Your task to perform on an android device: open wifi settings Image 0: 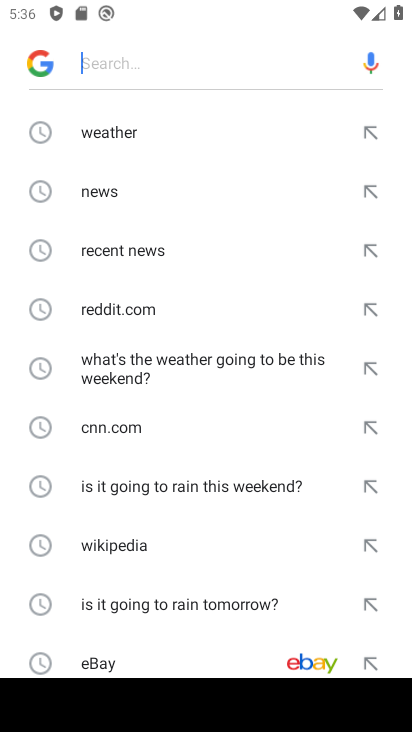
Step 0: press home button
Your task to perform on an android device: open wifi settings Image 1: 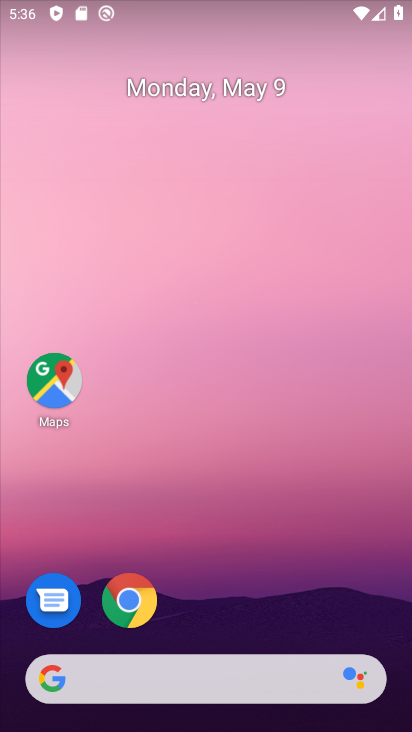
Step 1: drag from (182, 629) to (306, 26)
Your task to perform on an android device: open wifi settings Image 2: 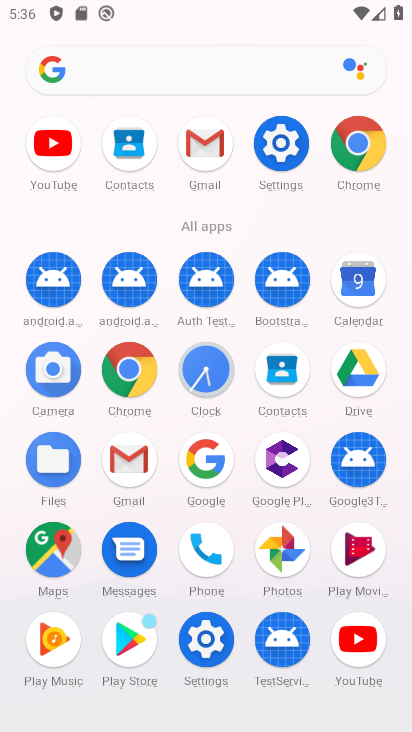
Step 2: click (281, 150)
Your task to perform on an android device: open wifi settings Image 3: 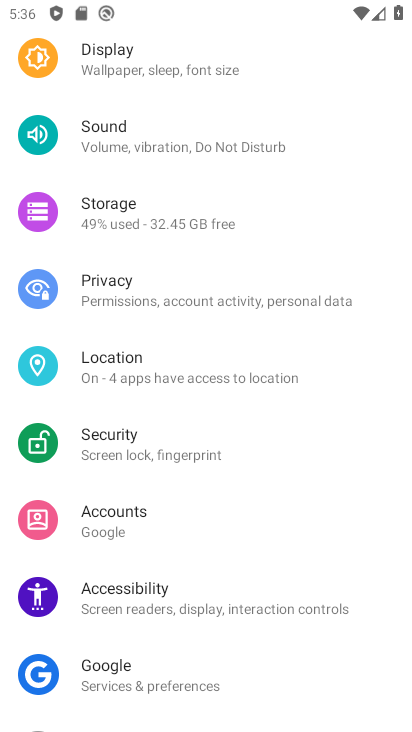
Step 3: drag from (254, 180) to (217, 599)
Your task to perform on an android device: open wifi settings Image 4: 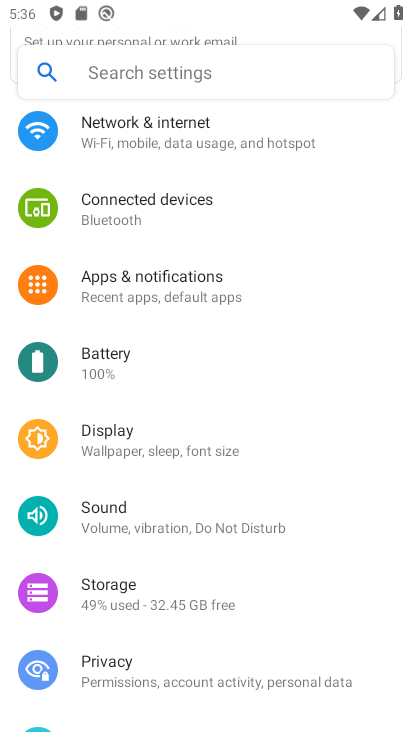
Step 4: drag from (246, 207) to (239, 428)
Your task to perform on an android device: open wifi settings Image 5: 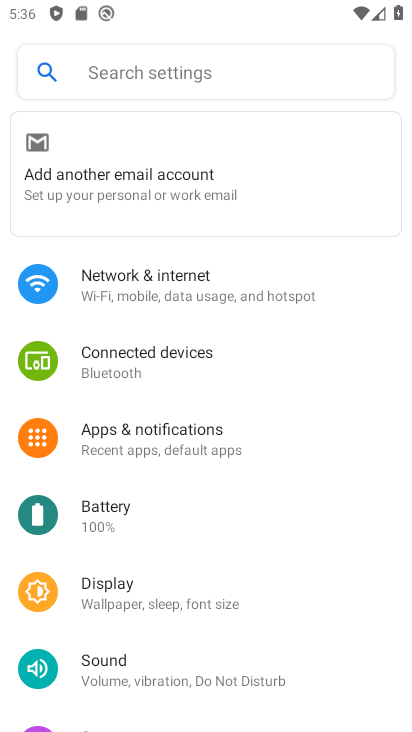
Step 5: click (190, 299)
Your task to perform on an android device: open wifi settings Image 6: 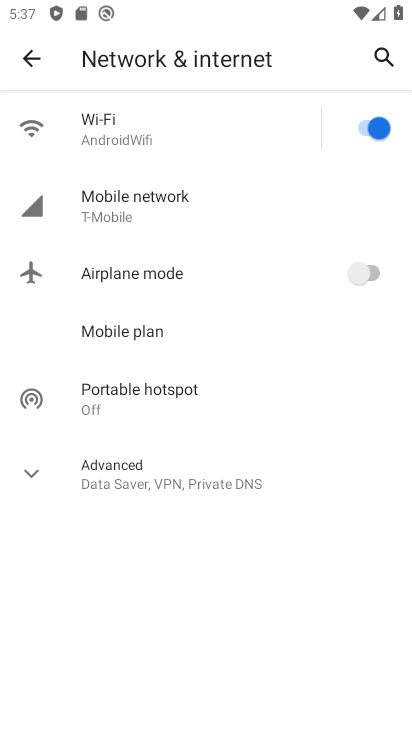
Step 6: click (186, 135)
Your task to perform on an android device: open wifi settings Image 7: 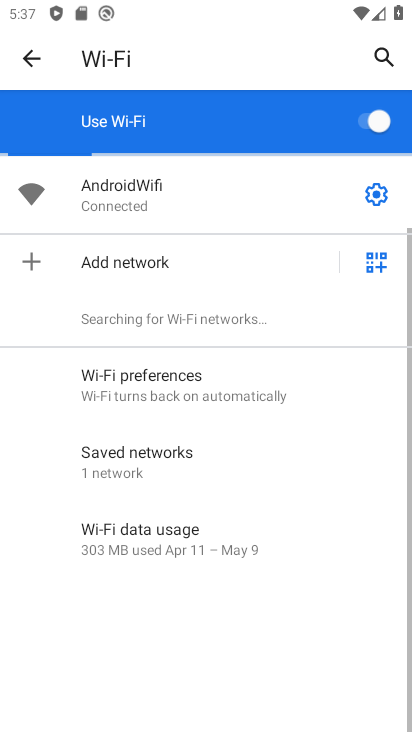
Step 7: task complete